Your task to perform on an android device: Open CNN.com Image 0: 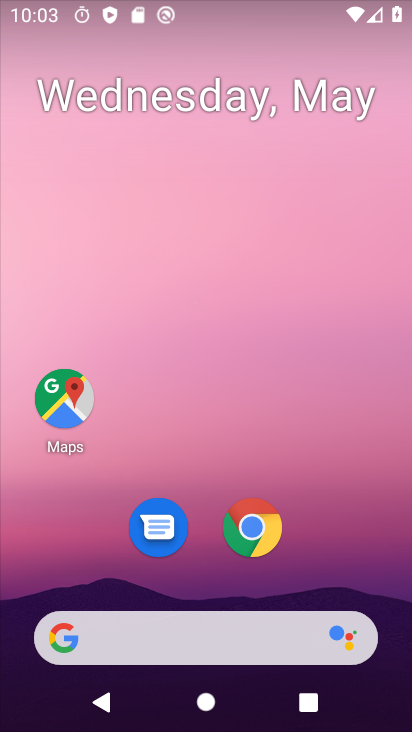
Step 0: press home button
Your task to perform on an android device: Open CNN.com Image 1: 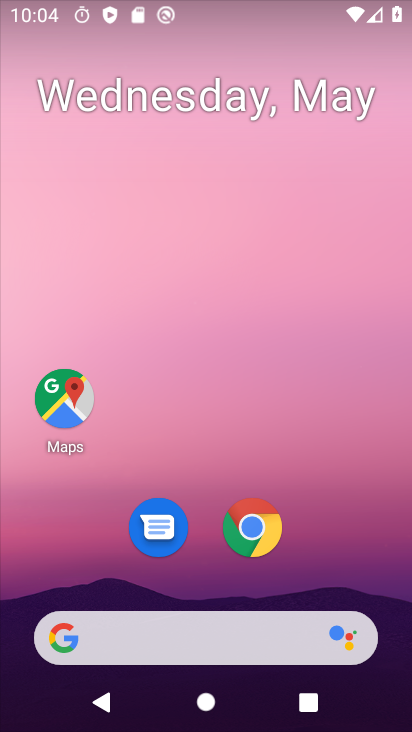
Step 1: click (268, 539)
Your task to perform on an android device: Open CNN.com Image 2: 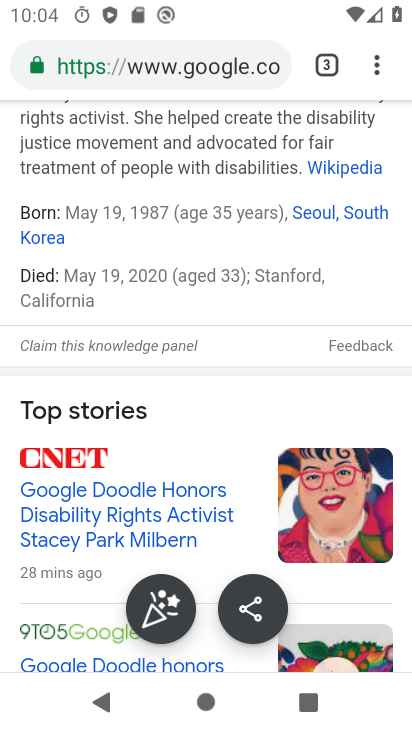
Step 2: click (187, 60)
Your task to perform on an android device: Open CNN.com Image 3: 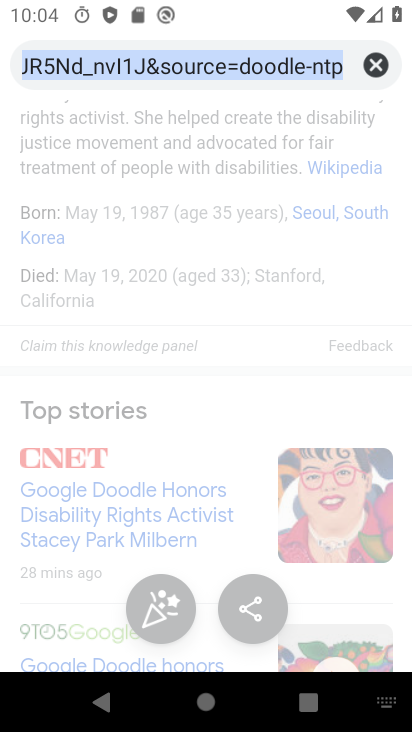
Step 3: click (371, 66)
Your task to perform on an android device: Open CNN.com Image 4: 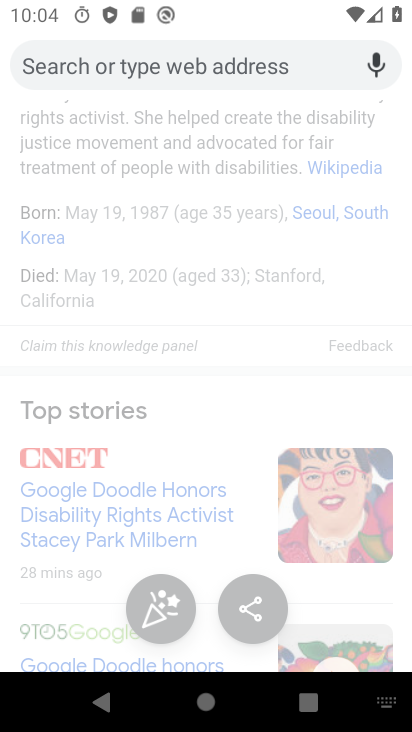
Step 4: type "CNN.com"
Your task to perform on an android device: Open CNN.com Image 5: 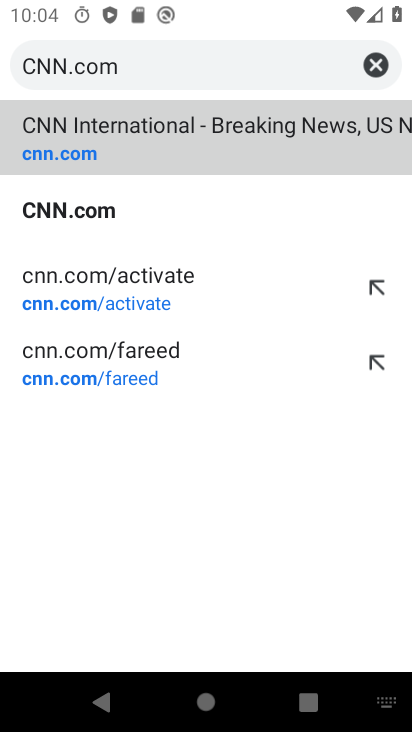
Step 5: click (62, 146)
Your task to perform on an android device: Open CNN.com Image 6: 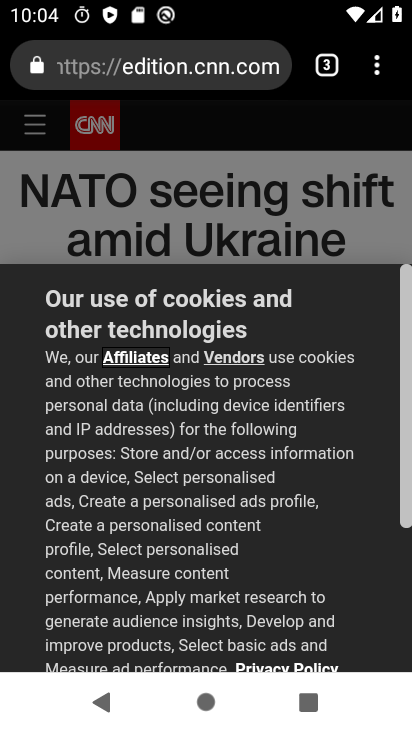
Step 6: task complete